Your task to perform on an android device: Go to Android settings Image 0: 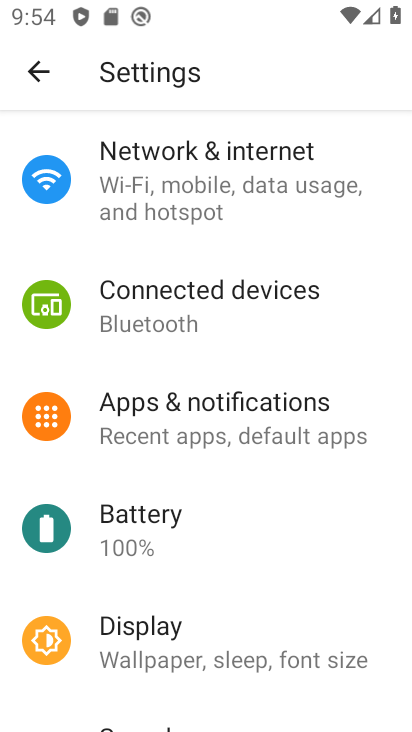
Step 0: drag from (125, 661) to (185, 170)
Your task to perform on an android device: Go to Android settings Image 1: 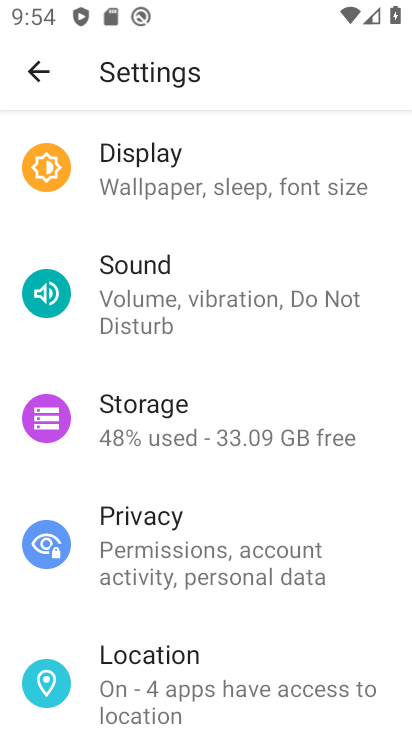
Step 1: drag from (137, 644) to (199, 130)
Your task to perform on an android device: Go to Android settings Image 2: 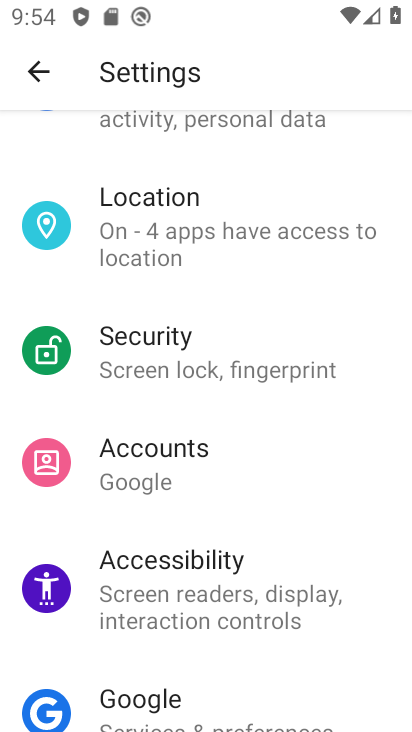
Step 2: drag from (151, 691) to (206, 226)
Your task to perform on an android device: Go to Android settings Image 3: 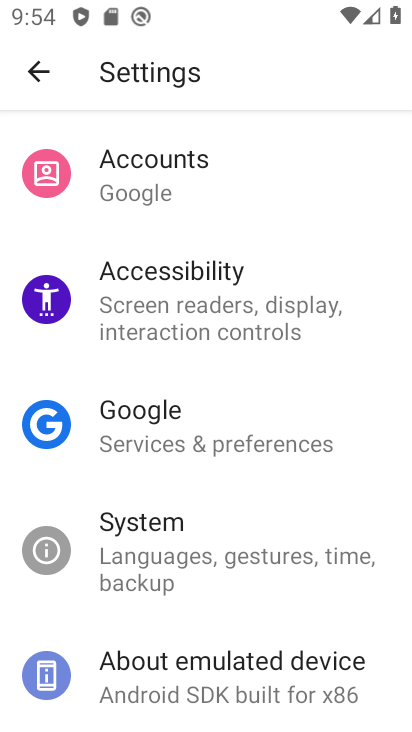
Step 3: drag from (215, 534) to (255, 176)
Your task to perform on an android device: Go to Android settings Image 4: 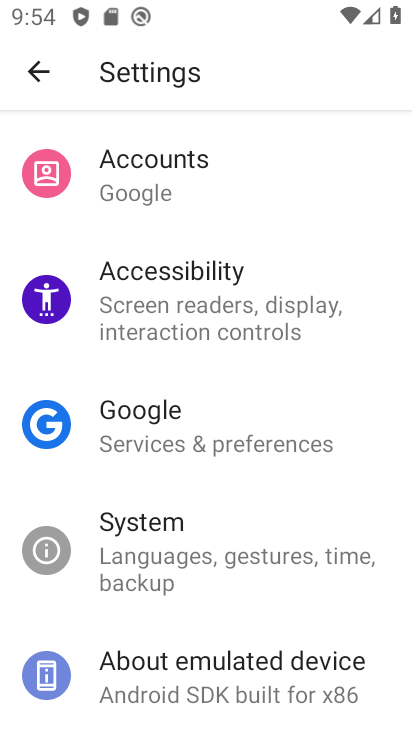
Step 4: click (227, 664)
Your task to perform on an android device: Go to Android settings Image 5: 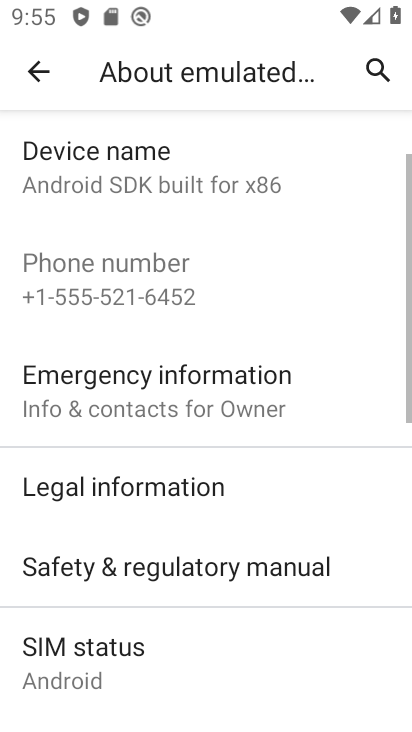
Step 5: drag from (172, 216) to (155, 509)
Your task to perform on an android device: Go to Android settings Image 6: 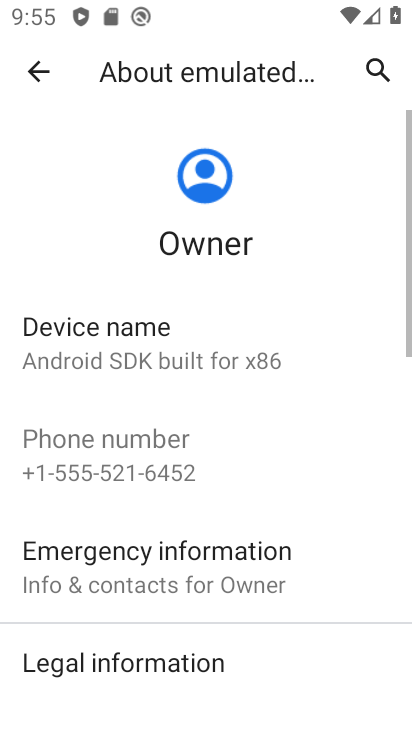
Step 6: drag from (198, 539) to (212, 321)
Your task to perform on an android device: Go to Android settings Image 7: 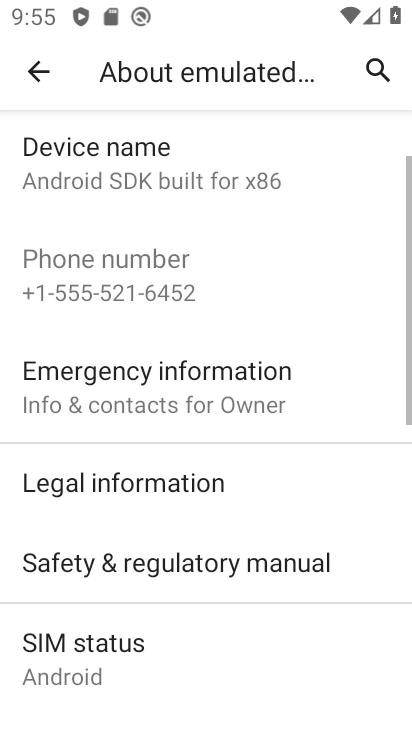
Step 7: drag from (160, 669) to (196, 371)
Your task to perform on an android device: Go to Android settings Image 8: 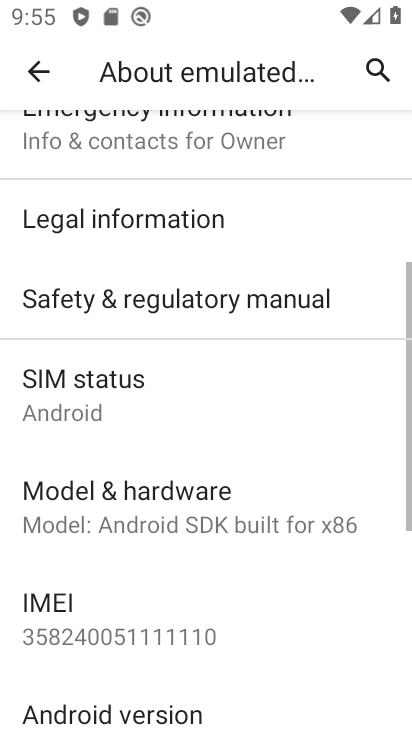
Step 8: drag from (179, 605) to (197, 361)
Your task to perform on an android device: Go to Android settings Image 9: 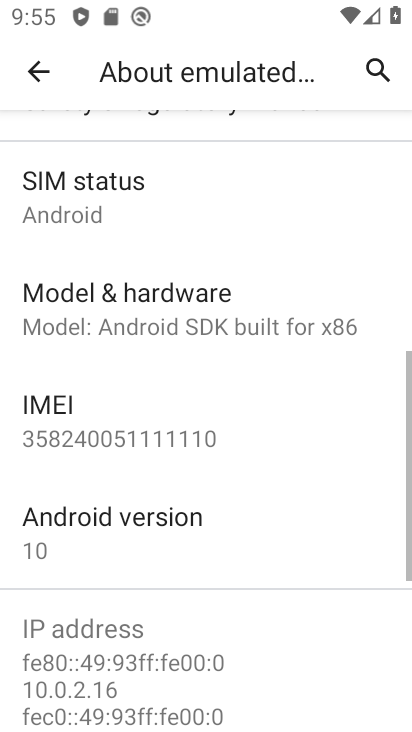
Step 9: click (51, 520)
Your task to perform on an android device: Go to Android settings Image 10: 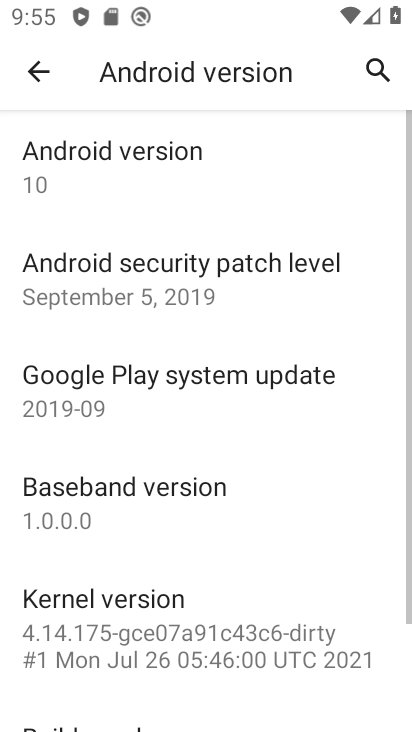
Step 10: task complete